Your task to perform on an android device: Open Android settings Image 0: 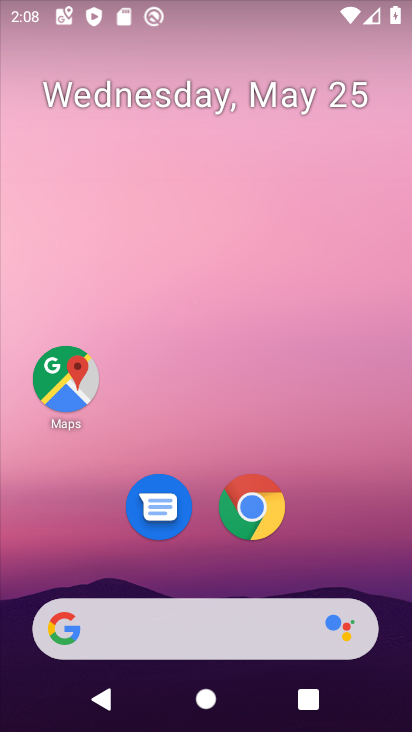
Step 0: drag from (192, 620) to (183, 62)
Your task to perform on an android device: Open Android settings Image 1: 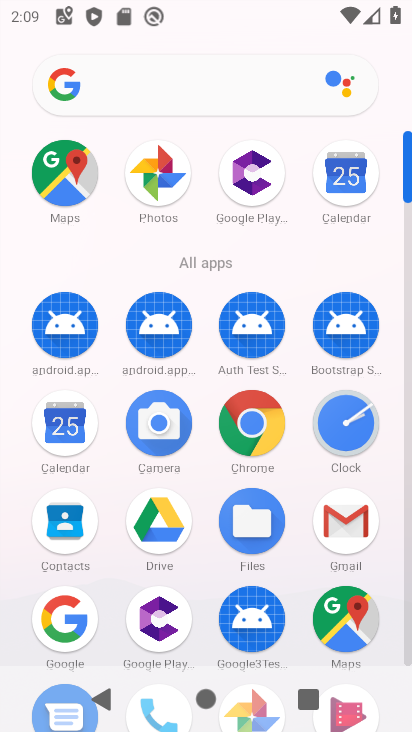
Step 1: drag from (176, 499) to (236, 11)
Your task to perform on an android device: Open Android settings Image 2: 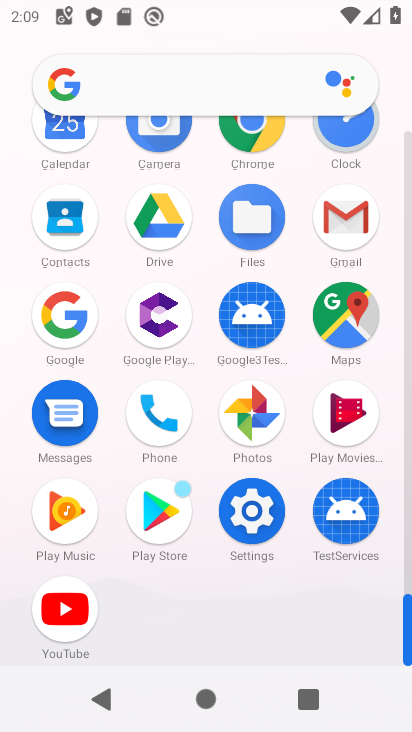
Step 2: click (260, 534)
Your task to perform on an android device: Open Android settings Image 3: 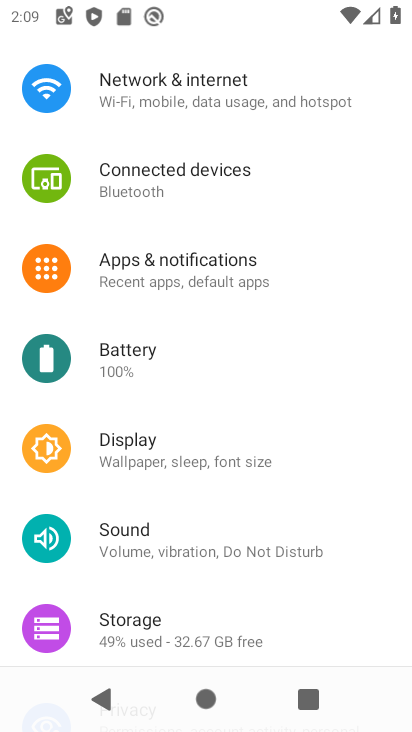
Step 3: drag from (210, 514) to (264, 92)
Your task to perform on an android device: Open Android settings Image 4: 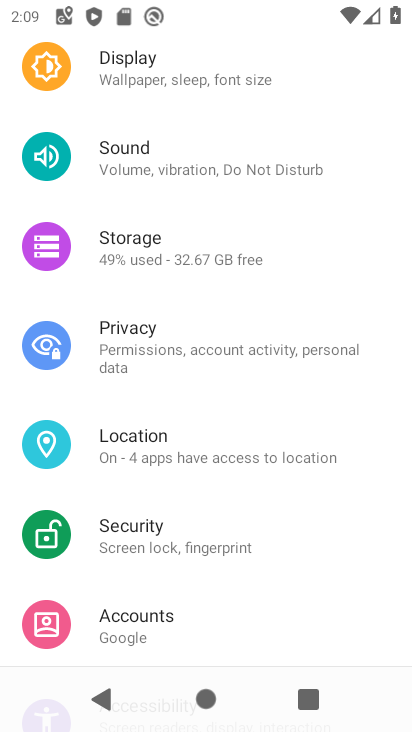
Step 4: drag from (171, 510) to (240, 126)
Your task to perform on an android device: Open Android settings Image 5: 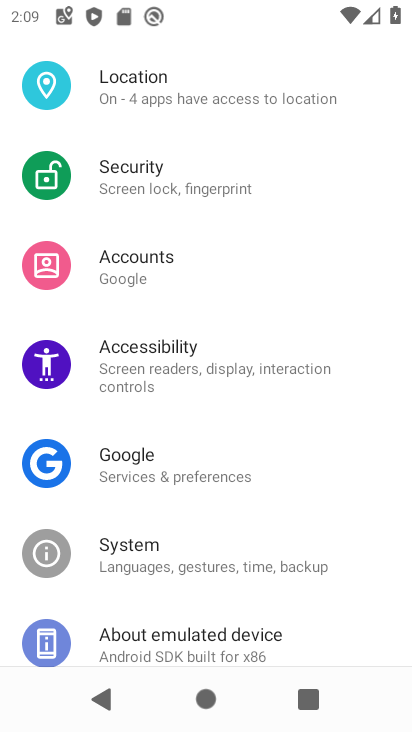
Step 5: drag from (164, 538) to (233, 155)
Your task to perform on an android device: Open Android settings Image 6: 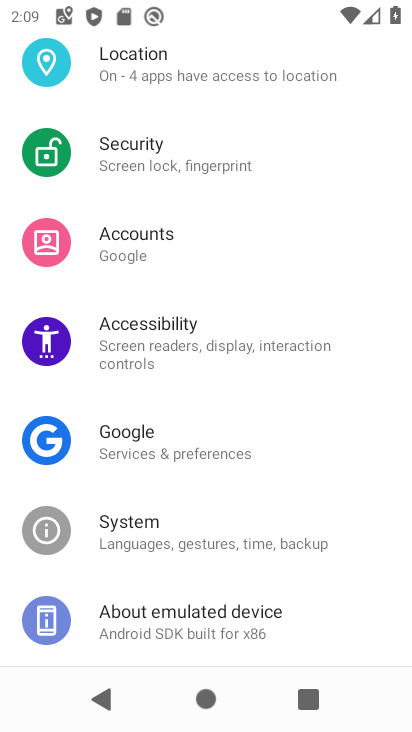
Step 6: click (152, 630)
Your task to perform on an android device: Open Android settings Image 7: 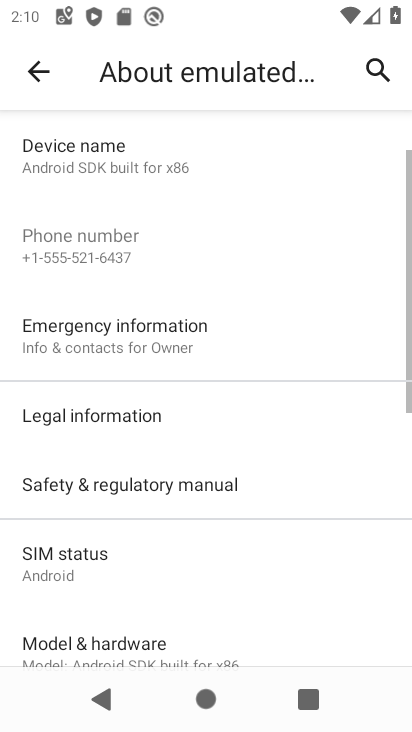
Step 7: drag from (249, 570) to (344, 152)
Your task to perform on an android device: Open Android settings Image 8: 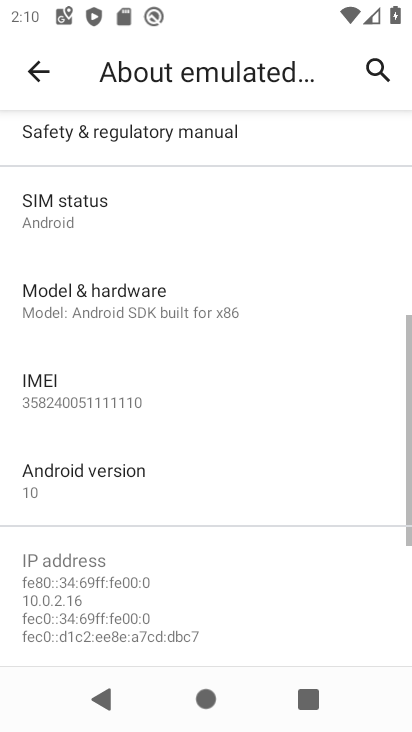
Step 8: click (112, 477)
Your task to perform on an android device: Open Android settings Image 9: 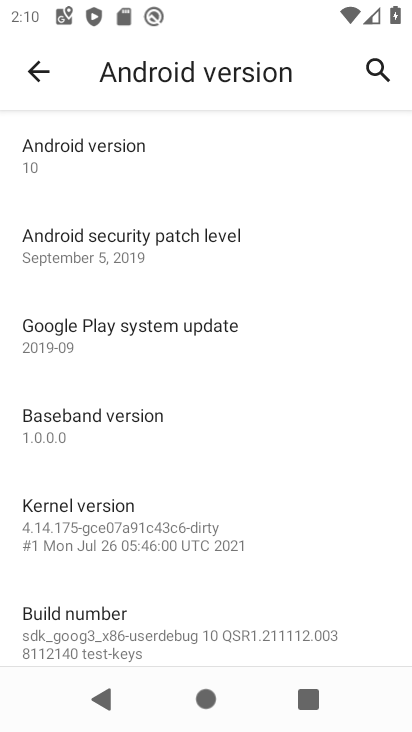
Step 9: task complete